Your task to perform on an android device: Open the phone app and click the voicemail tab. Image 0: 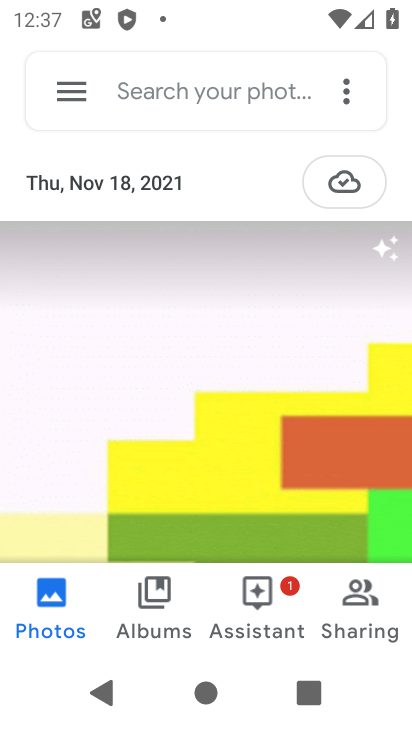
Step 0: press home button
Your task to perform on an android device: Open the phone app and click the voicemail tab. Image 1: 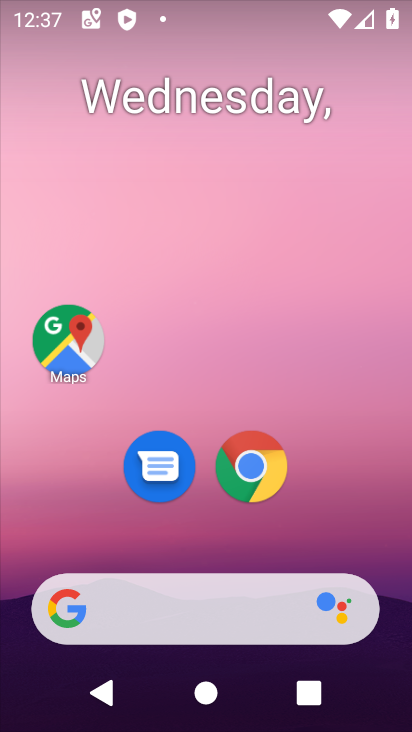
Step 1: drag from (205, 560) to (259, 55)
Your task to perform on an android device: Open the phone app and click the voicemail tab. Image 2: 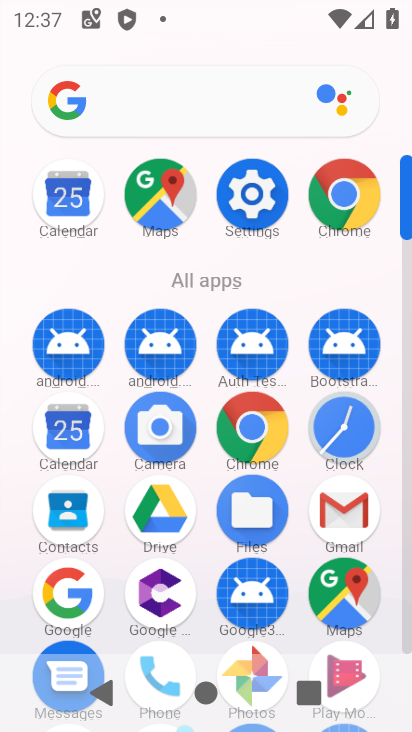
Step 2: click (407, 634)
Your task to perform on an android device: Open the phone app and click the voicemail tab. Image 3: 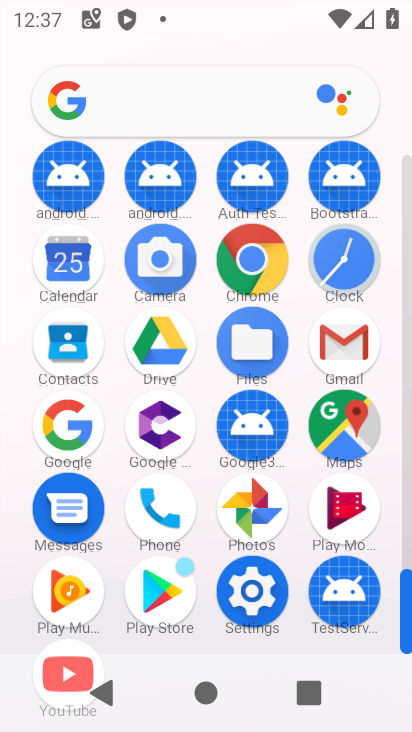
Step 3: click (164, 494)
Your task to perform on an android device: Open the phone app and click the voicemail tab. Image 4: 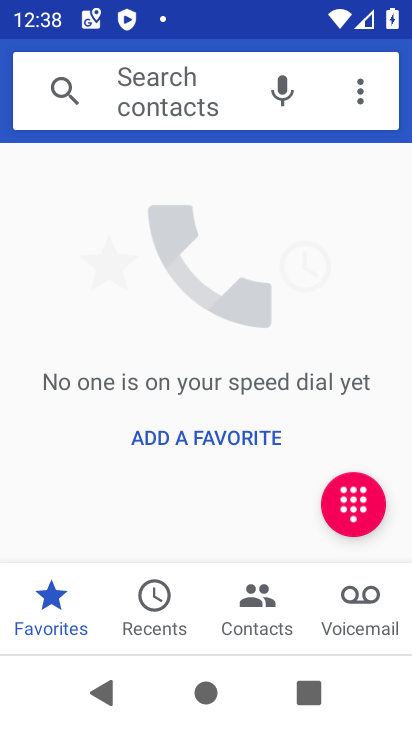
Step 4: click (344, 624)
Your task to perform on an android device: Open the phone app and click the voicemail tab. Image 5: 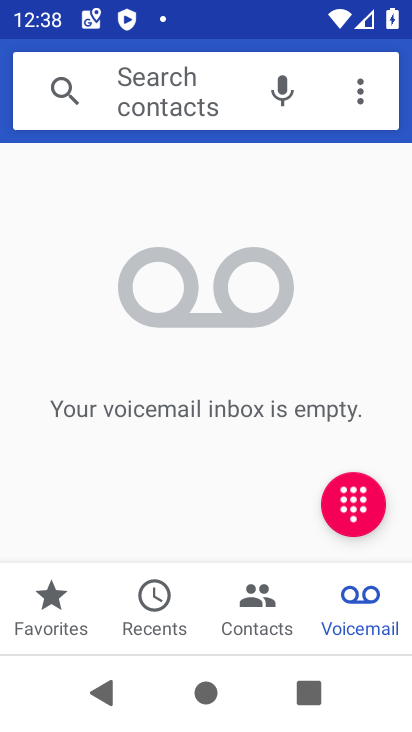
Step 5: task complete